Your task to perform on an android device: open a new tab in the chrome app Image 0: 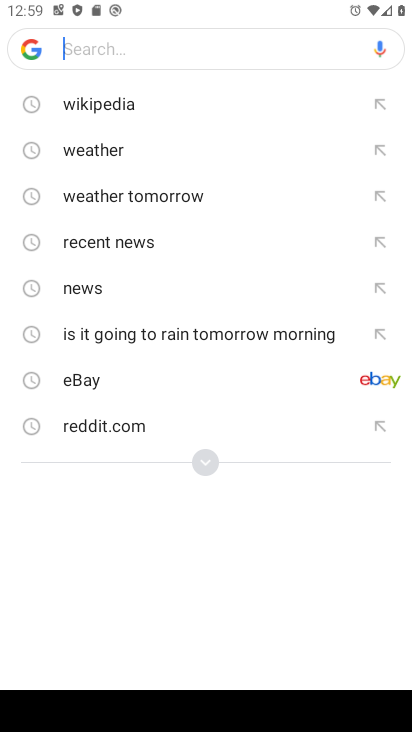
Step 0: press home button
Your task to perform on an android device: open a new tab in the chrome app Image 1: 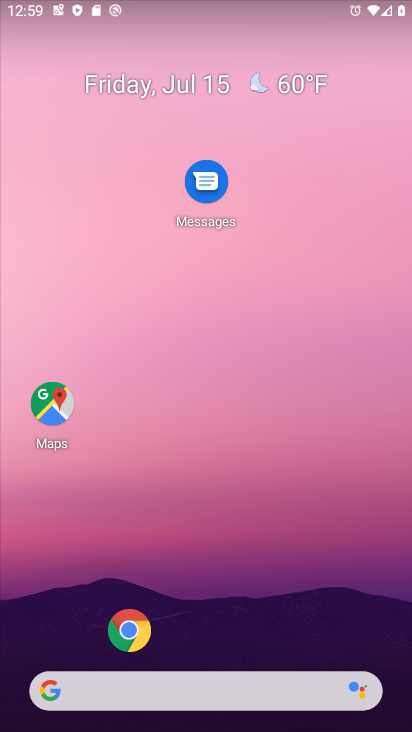
Step 1: click (137, 619)
Your task to perform on an android device: open a new tab in the chrome app Image 2: 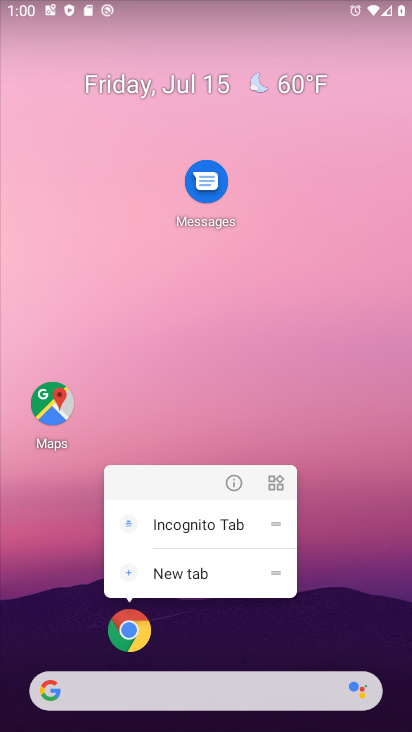
Step 2: click (133, 642)
Your task to perform on an android device: open a new tab in the chrome app Image 3: 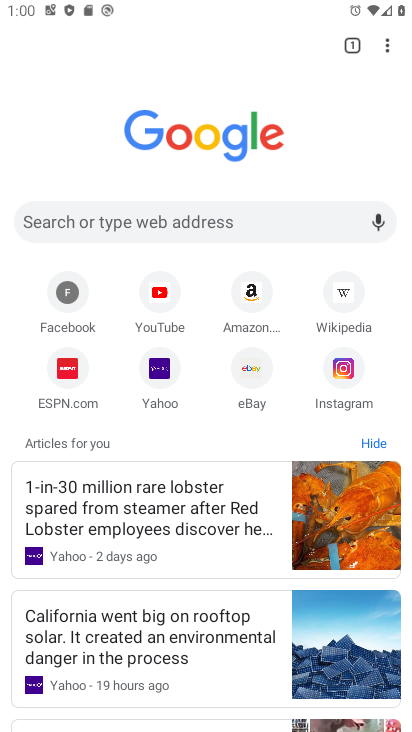
Step 3: click (126, 225)
Your task to perform on an android device: open a new tab in the chrome app Image 4: 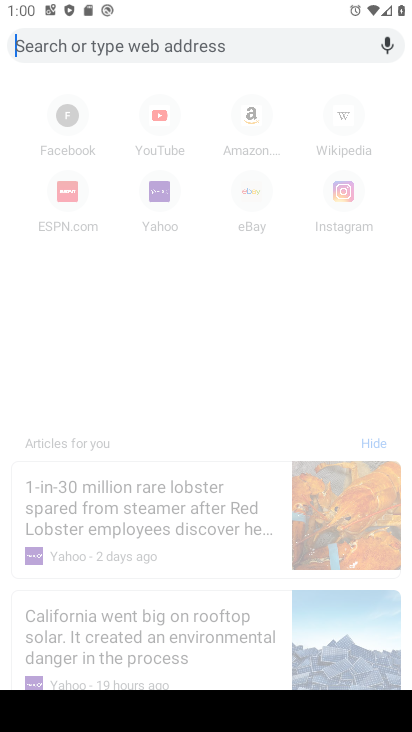
Step 4: task complete